Your task to perform on an android device: clear history in the chrome app Image 0: 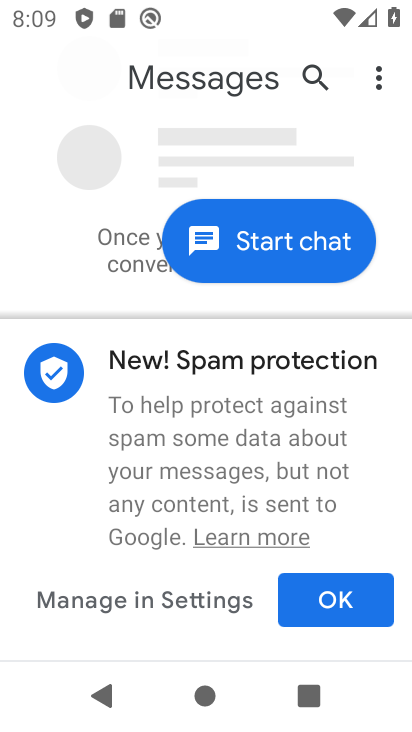
Step 0: press back button
Your task to perform on an android device: clear history in the chrome app Image 1: 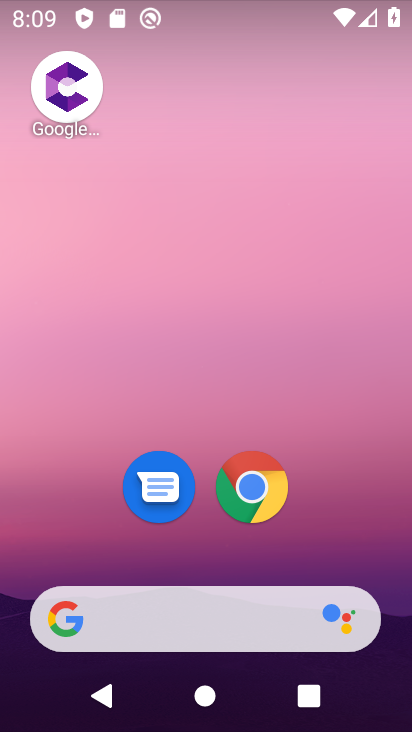
Step 1: drag from (339, 520) to (202, 6)
Your task to perform on an android device: clear history in the chrome app Image 2: 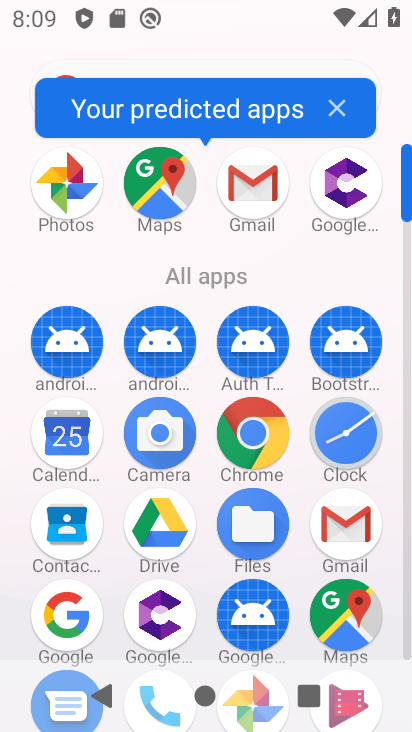
Step 2: click (253, 460)
Your task to perform on an android device: clear history in the chrome app Image 3: 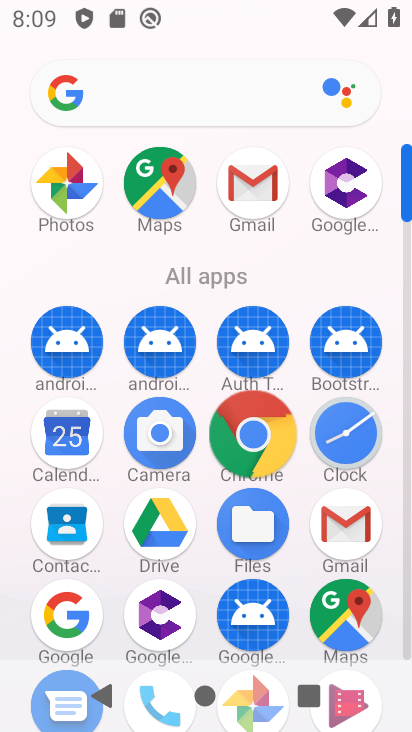
Step 3: click (252, 444)
Your task to perform on an android device: clear history in the chrome app Image 4: 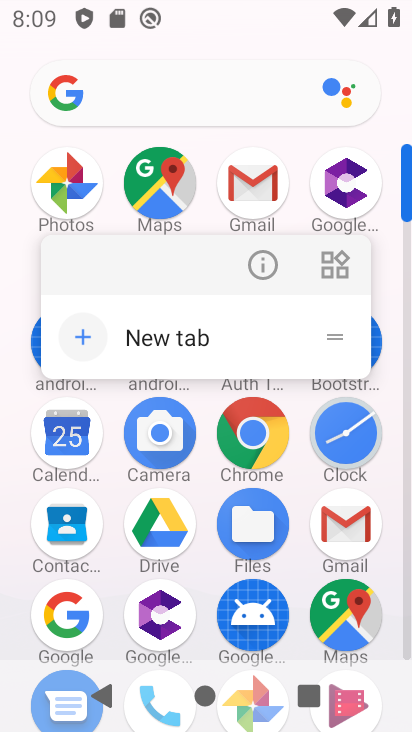
Step 4: click (257, 433)
Your task to perform on an android device: clear history in the chrome app Image 5: 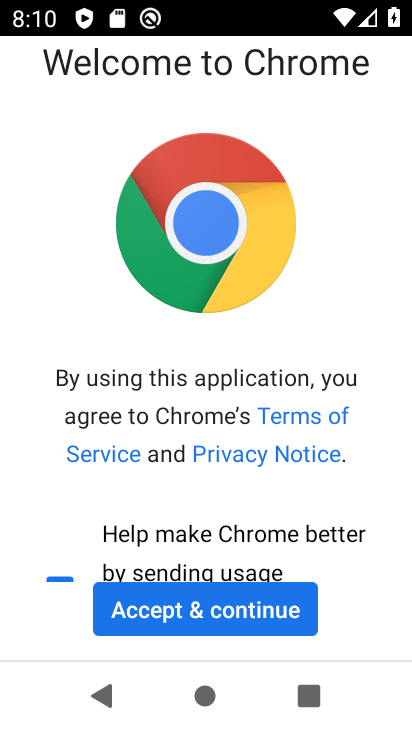
Step 5: click (183, 621)
Your task to perform on an android device: clear history in the chrome app Image 6: 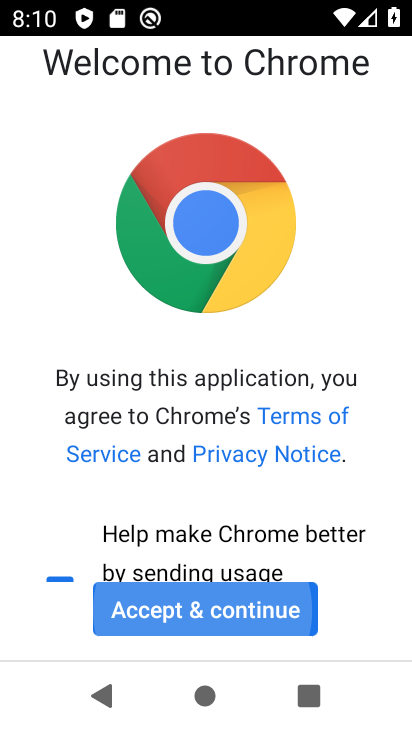
Step 6: click (183, 621)
Your task to perform on an android device: clear history in the chrome app Image 7: 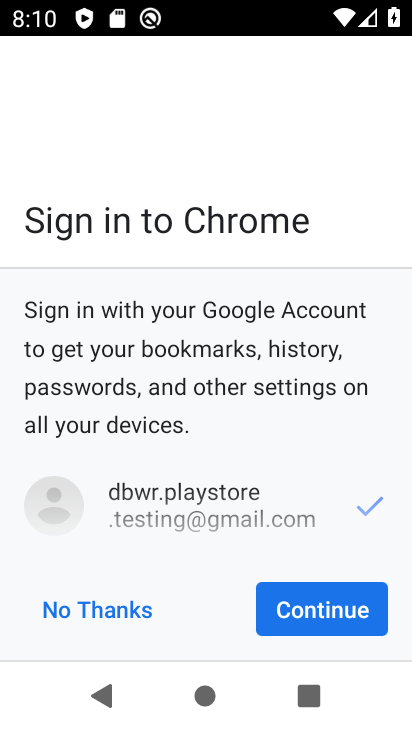
Step 7: click (313, 606)
Your task to perform on an android device: clear history in the chrome app Image 8: 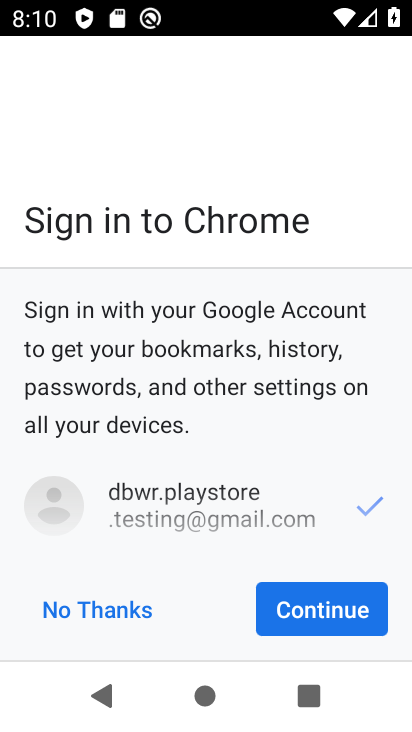
Step 8: click (313, 606)
Your task to perform on an android device: clear history in the chrome app Image 9: 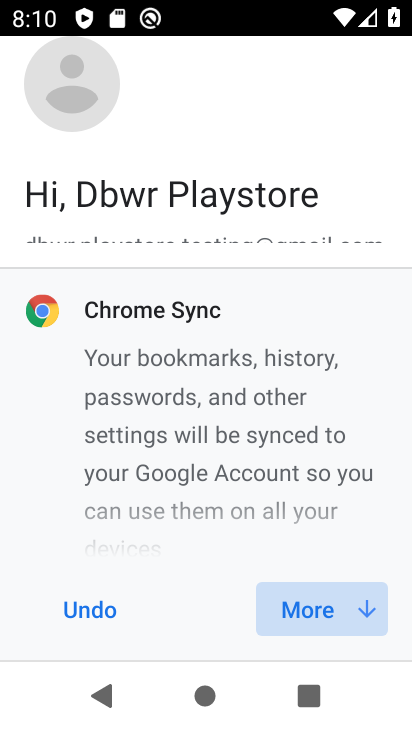
Step 9: click (313, 606)
Your task to perform on an android device: clear history in the chrome app Image 10: 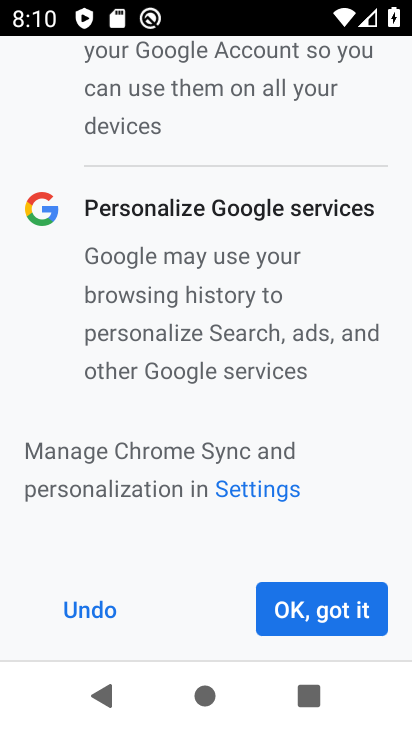
Step 10: click (338, 593)
Your task to perform on an android device: clear history in the chrome app Image 11: 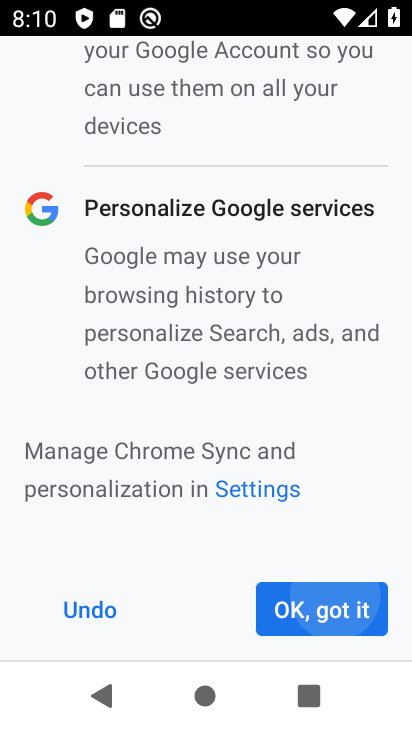
Step 11: click (340, 599)
Your task to perform on an android device: clear history in the chrome app Image 12: 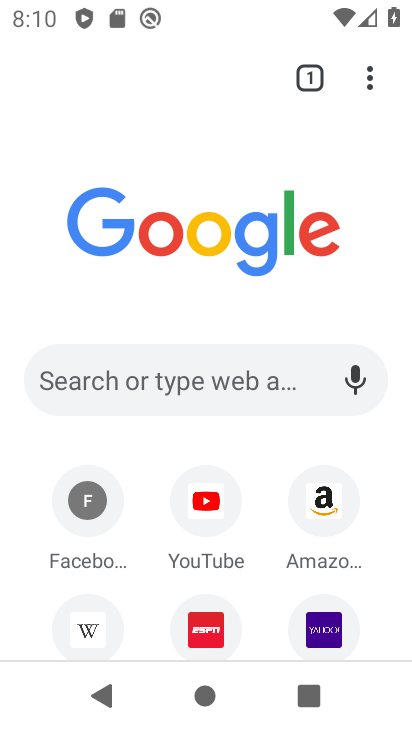
Step 12: drag from (375, 88) to (88, 340)
Your task to perform on an android device: clear history in the chrome app Image 13: 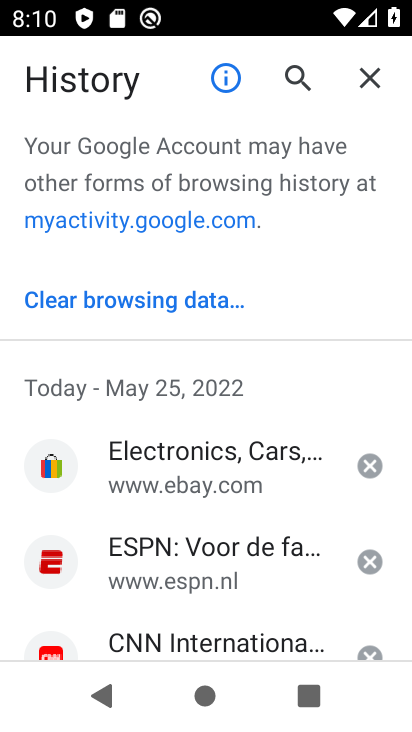
Step 13: click (153, 285)
Your task to perform on an android device: clear history in the chrome app Image 14: 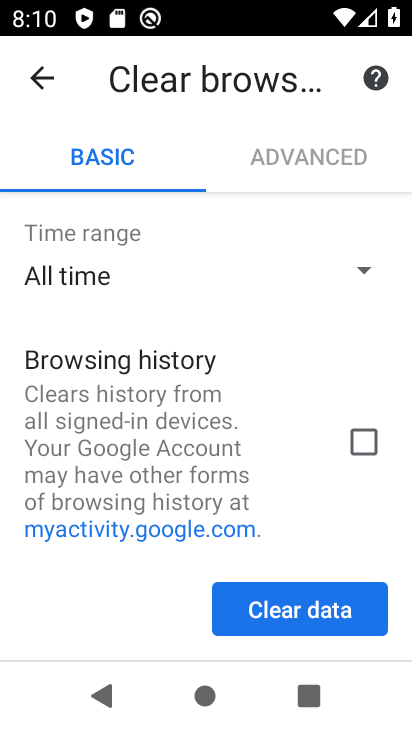
Step 14: click (309, 616)
Your task to perform on an android device: clear history in the chrome app Image 15: 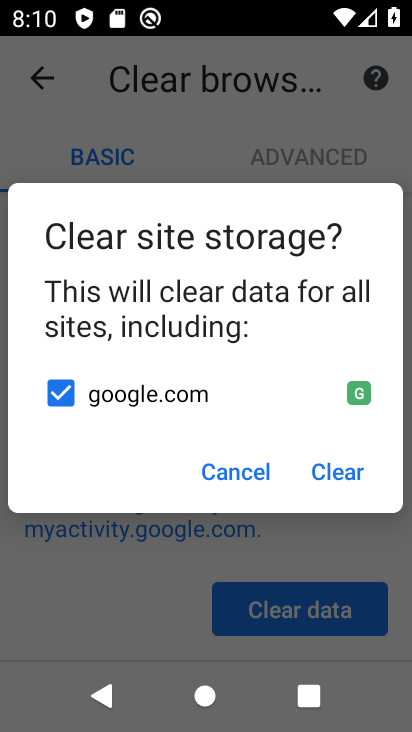
Step 15: click (314, 480)
Your task to perform on an android device: clear history in the chrome app Image 16: 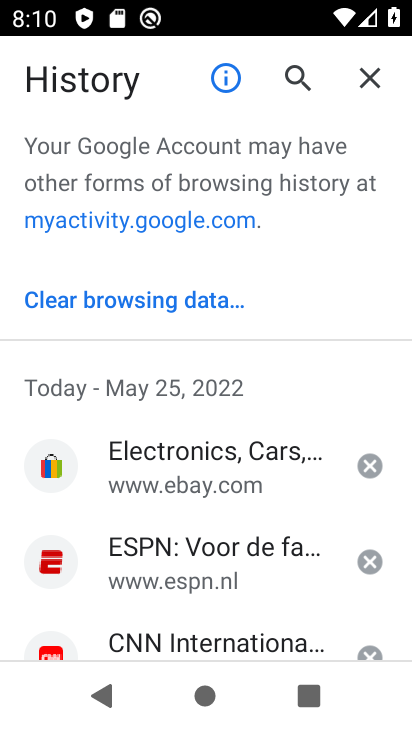
Step 16: task complete